Your task to perform on an android device: toggle location history Image 0: 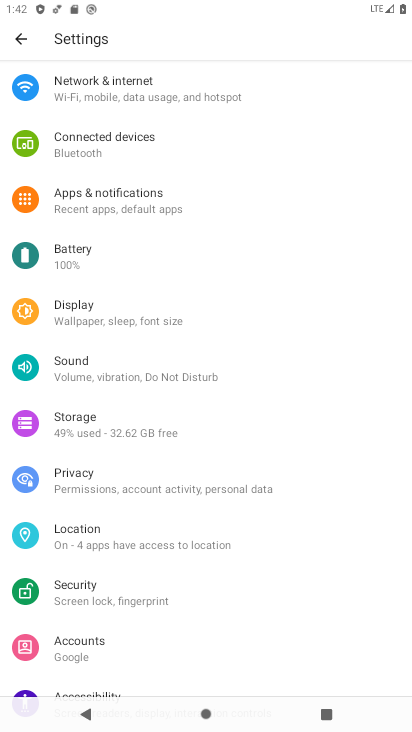
Step 0: press home button
Your task to perform on an android device: toggle location history Image 1: 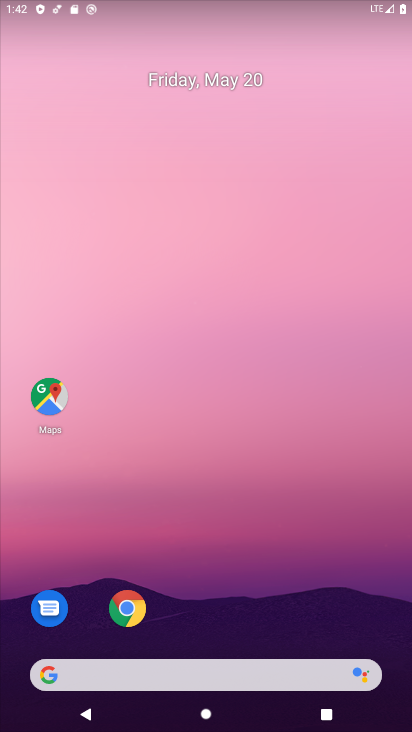
Step 1: drag from (205, 593) to (115, 69)
Your task to perform on an android device: toggle location history Image 2: 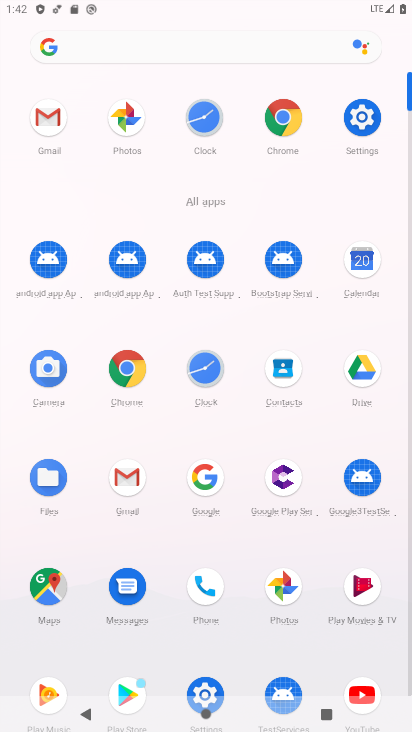
Step 2: click (360, 116)
Your task to perform on an android device: toggle location history Image 3: 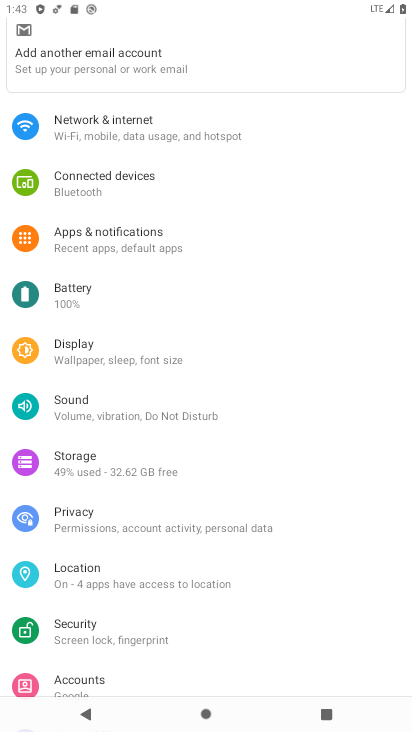
Step 3: click (83, 572)
Your task to perform on an android device: toggle location history Image 4: 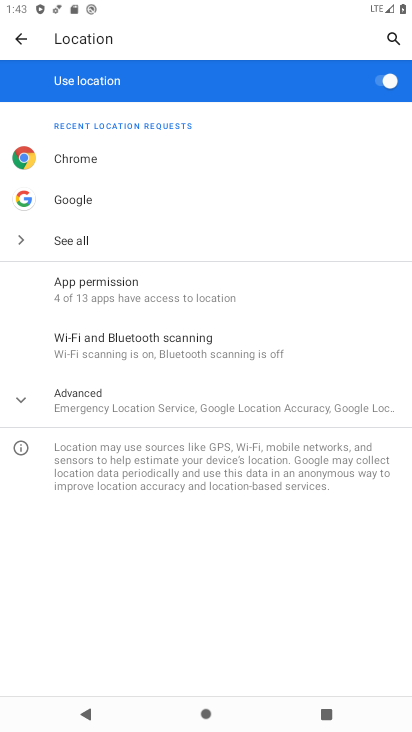
Step 4: click (81, 399)
Your task to perform on an android device: toggle location history Image 5: 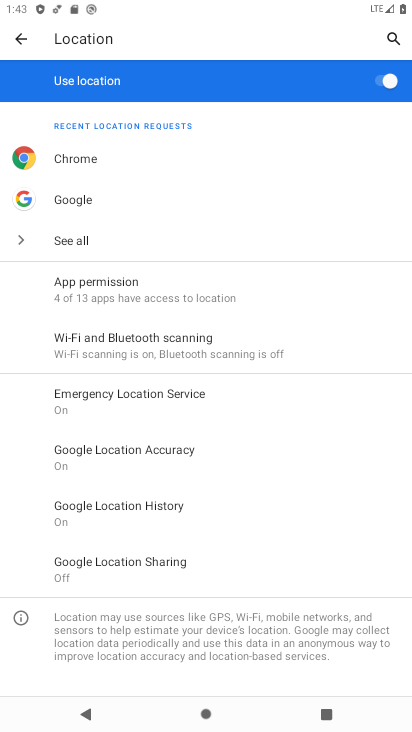
Step 5: click (127, 505)
Your task to perform on an android device: toggle location history Image 6: 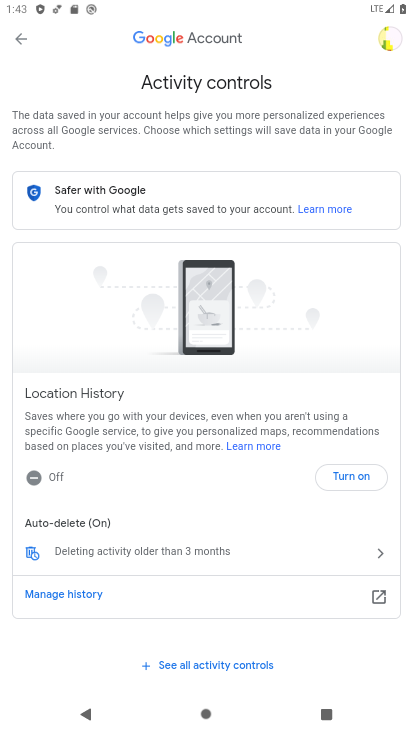
Step 6: task complete